Your task to perform on an android device: Search for a cheap bike on Walmart Image 0: 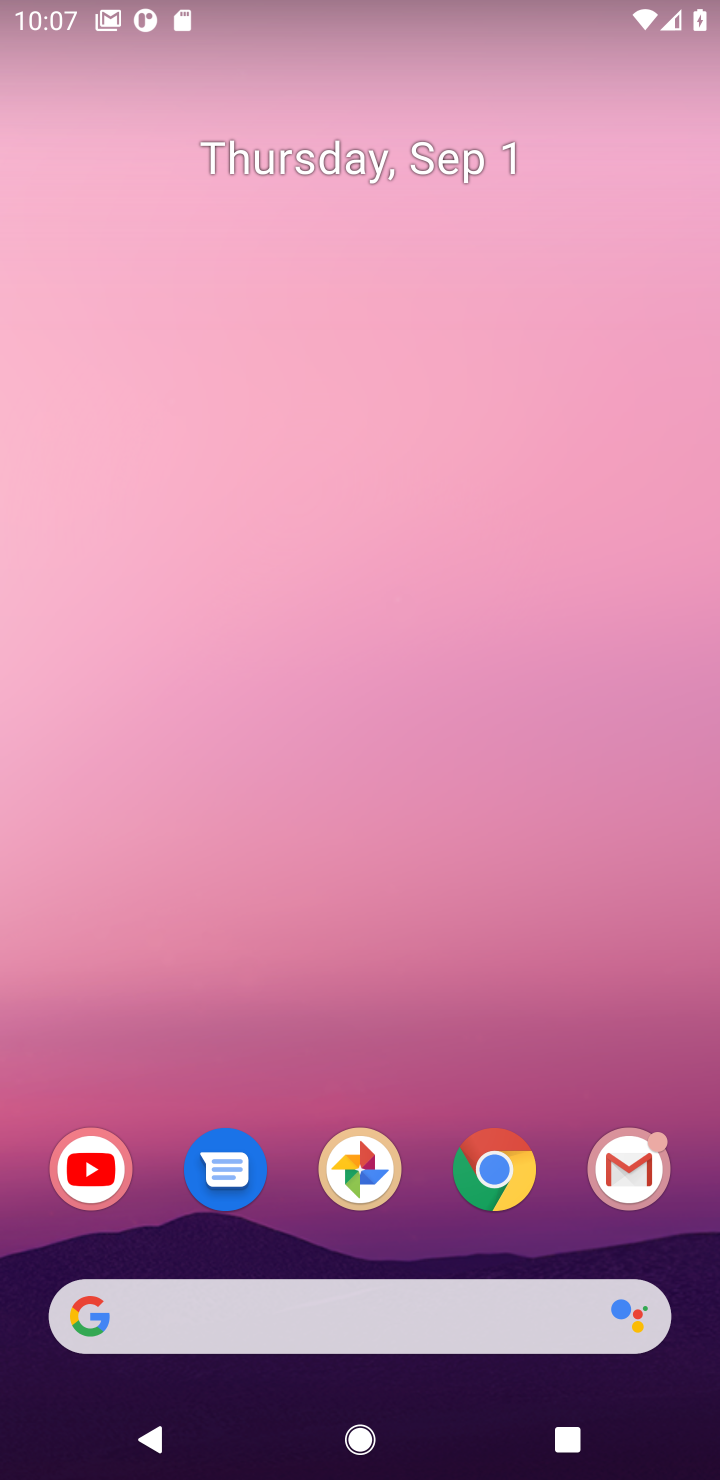
Step 0: drag from (442, 455) to (456, 96)
Your task to perform on an android device: Search for a cheap bike on Walmart Image 1: 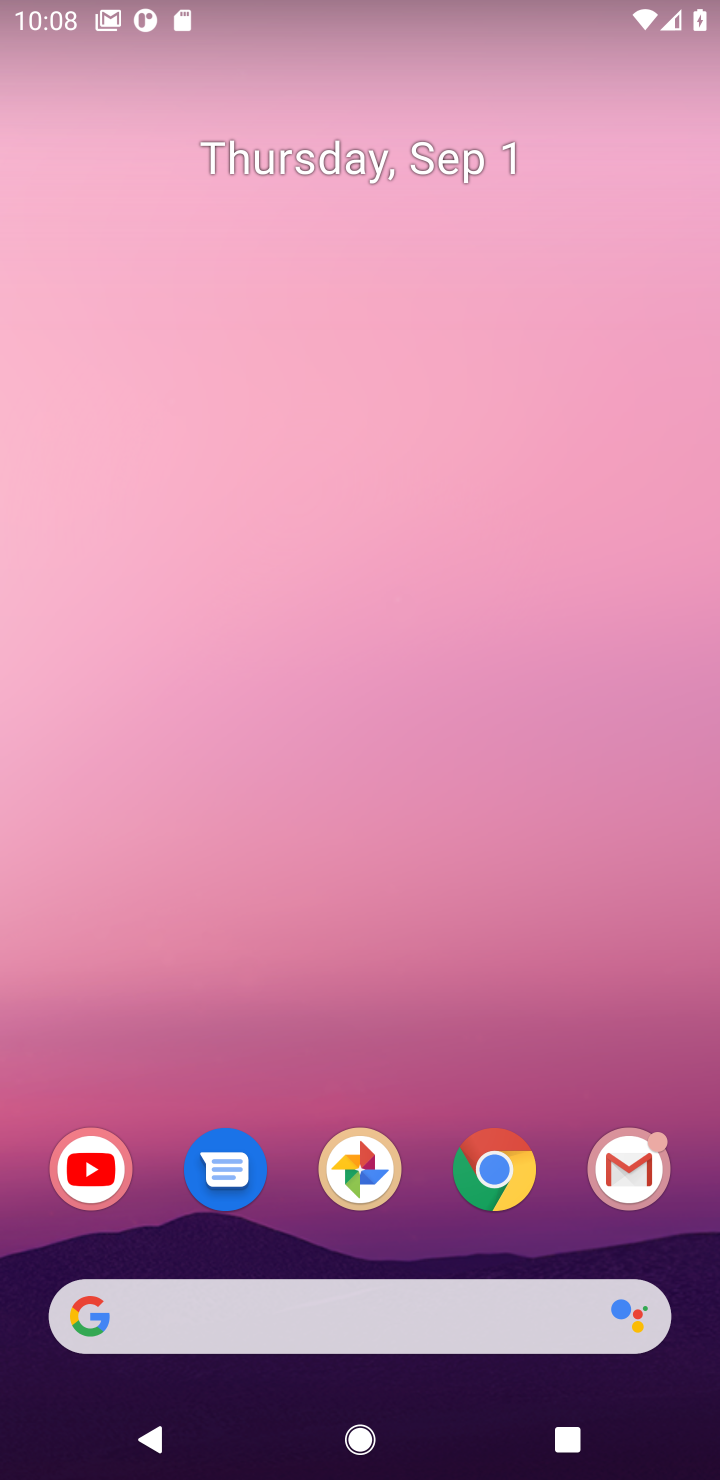
Step 1: drag from (418, 373) to (418, 105)
Your task to perform on an android device: Search for a cheap bike on Walmart Image 2: 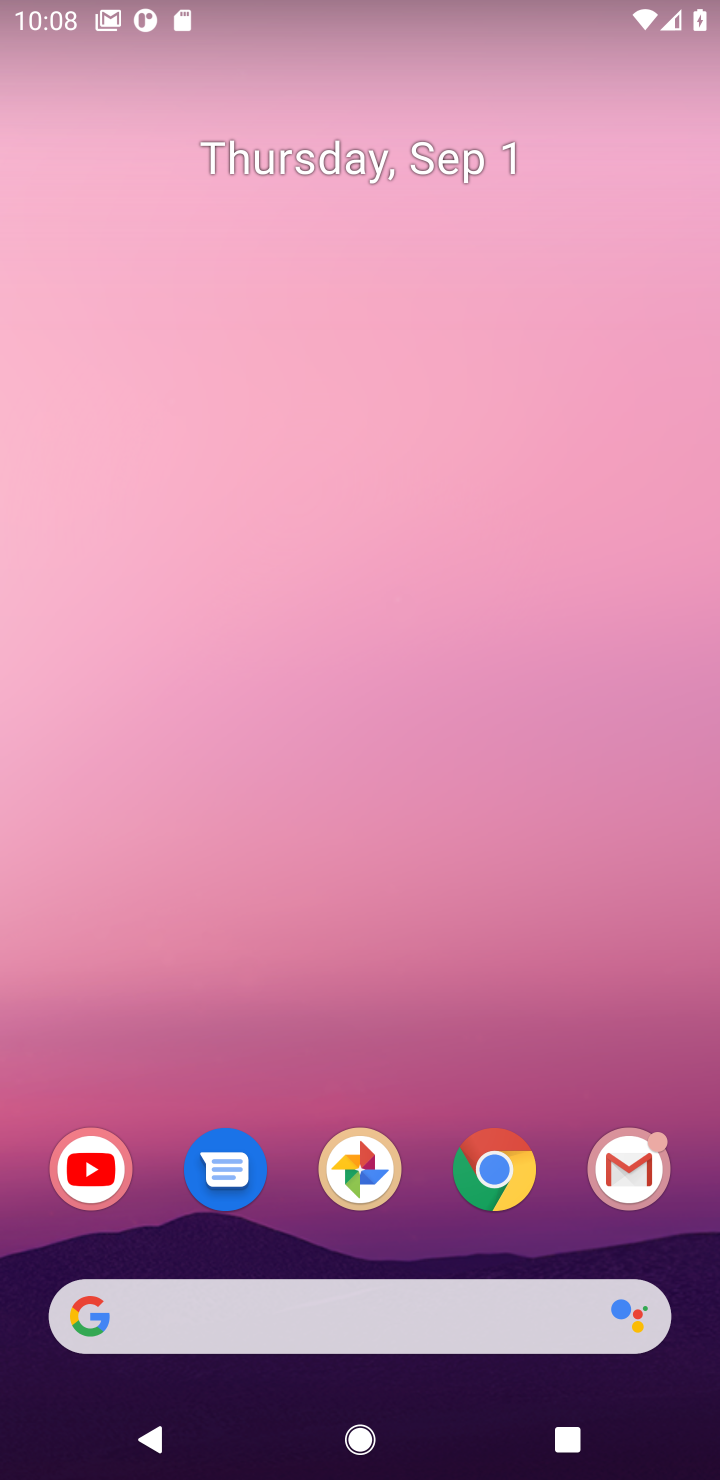
Step 2: drag from (428, 1257) to (429, 15)
Your task to perform on an android device: Search for a cheap bike on Walmart Image 3: 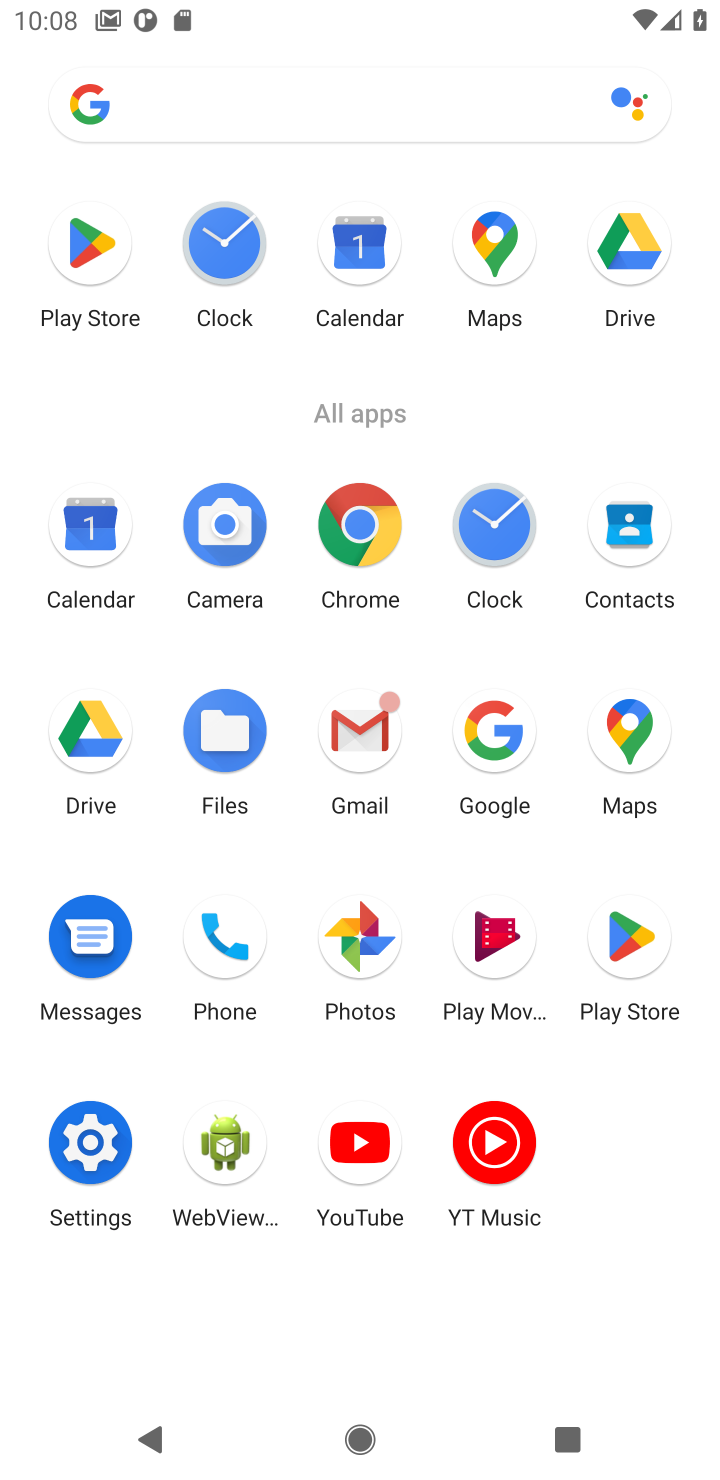
Step 3: click (345, 519)
Your task to perform on an android device: Search for a cheap bike on Walmart Image 4: 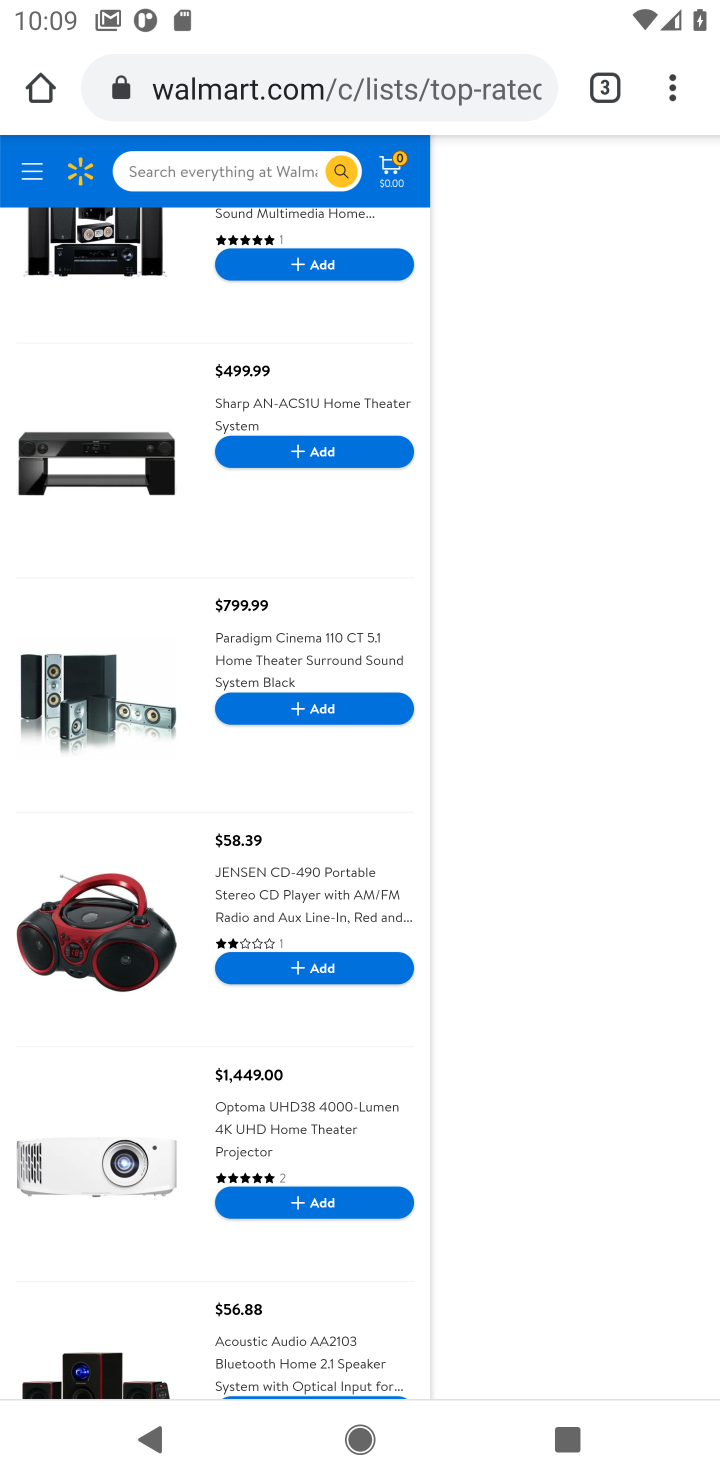
Step 4: drag from (331, 1079) to (351, 1273)
Your task to perform on an android device: Search for a cheap bike on Walmart Image 5: 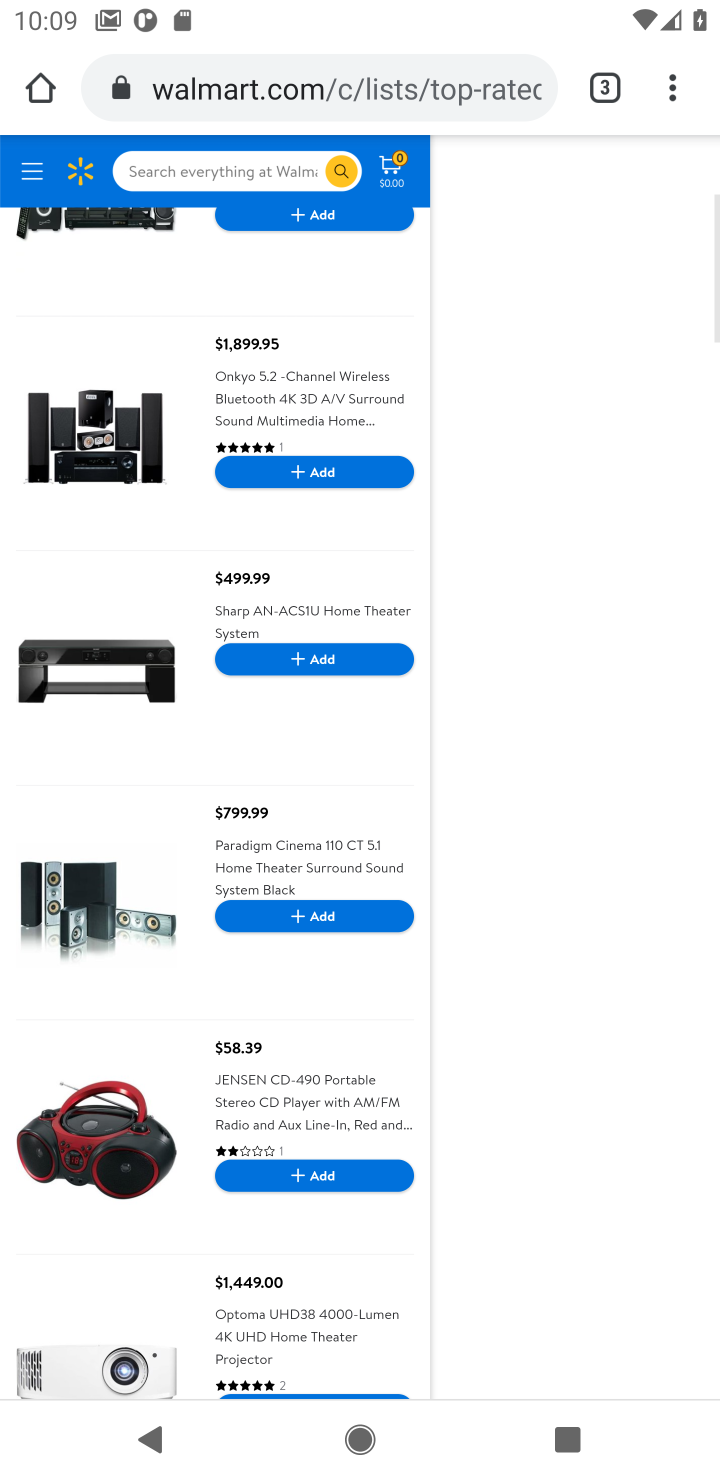
Step 5: click (362, 85)
Your task to perform on an android device: Search for a cheap bike on Walmart Image 6: 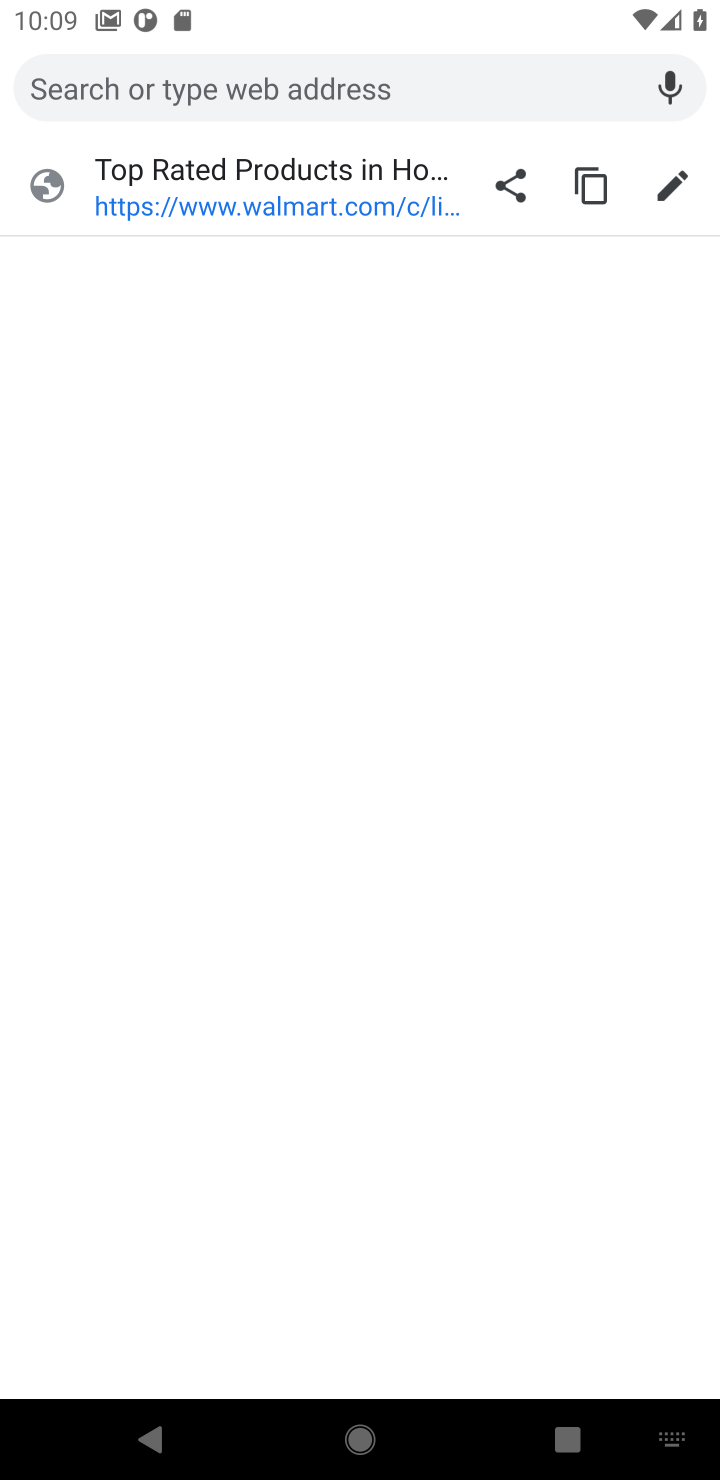
Step 6: type "a cheap bike on Walmart"
Your task to perform on an android device: Search for a cheap bike on Walmart Image 7: 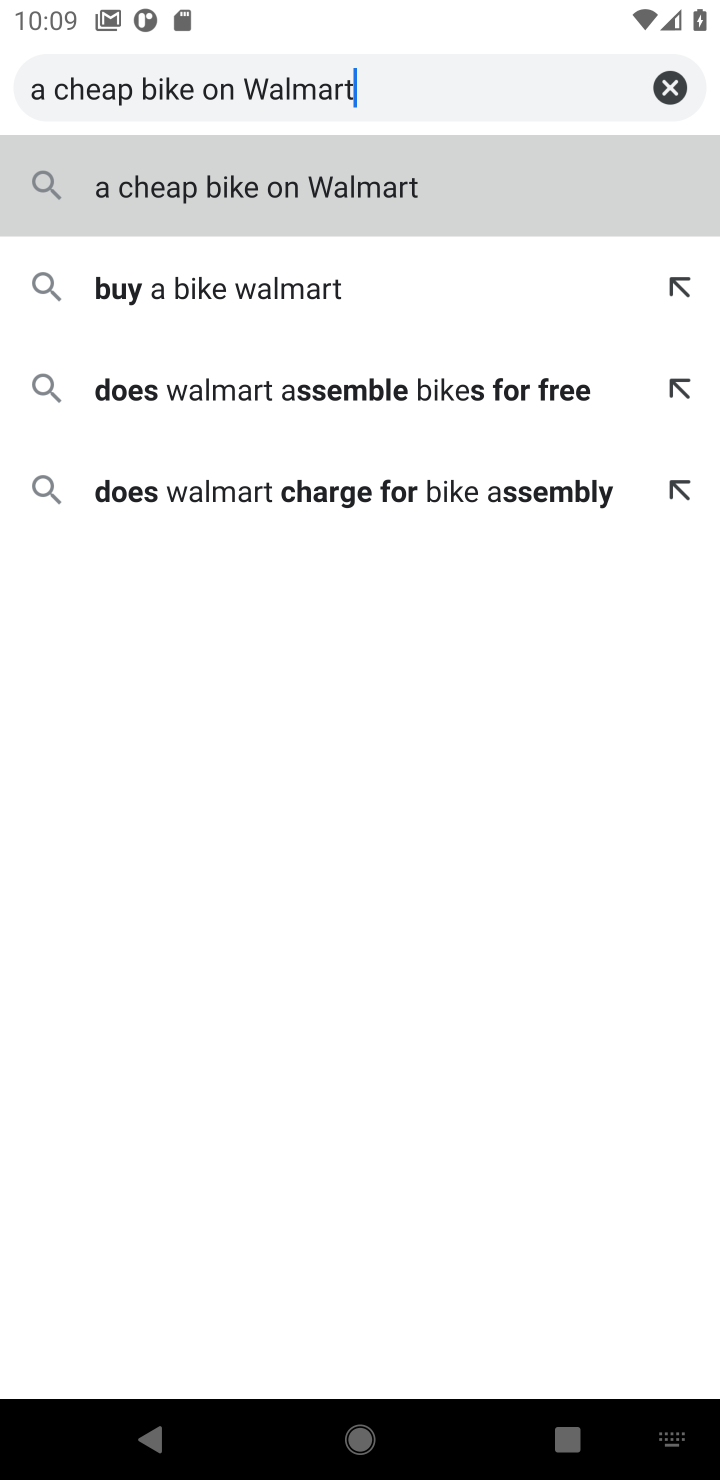
Step 7: click (255, 212)
Your task to perform on an android device: Search for a cheap bike on Walmart Image 8: 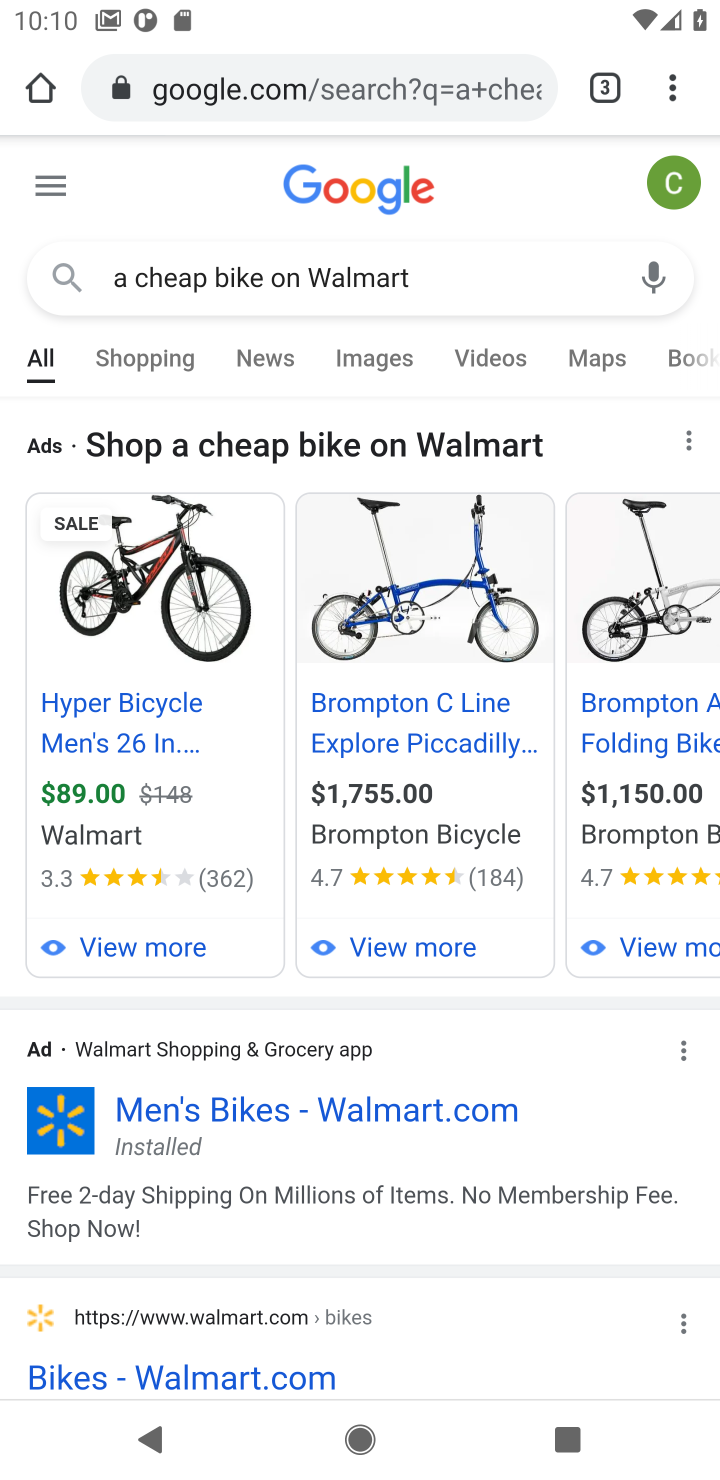
Step 8: drag from (266, 1331) to (294, 586)
Your task to perform on an android device: Search for a cheap bike on Walmart Image 9: 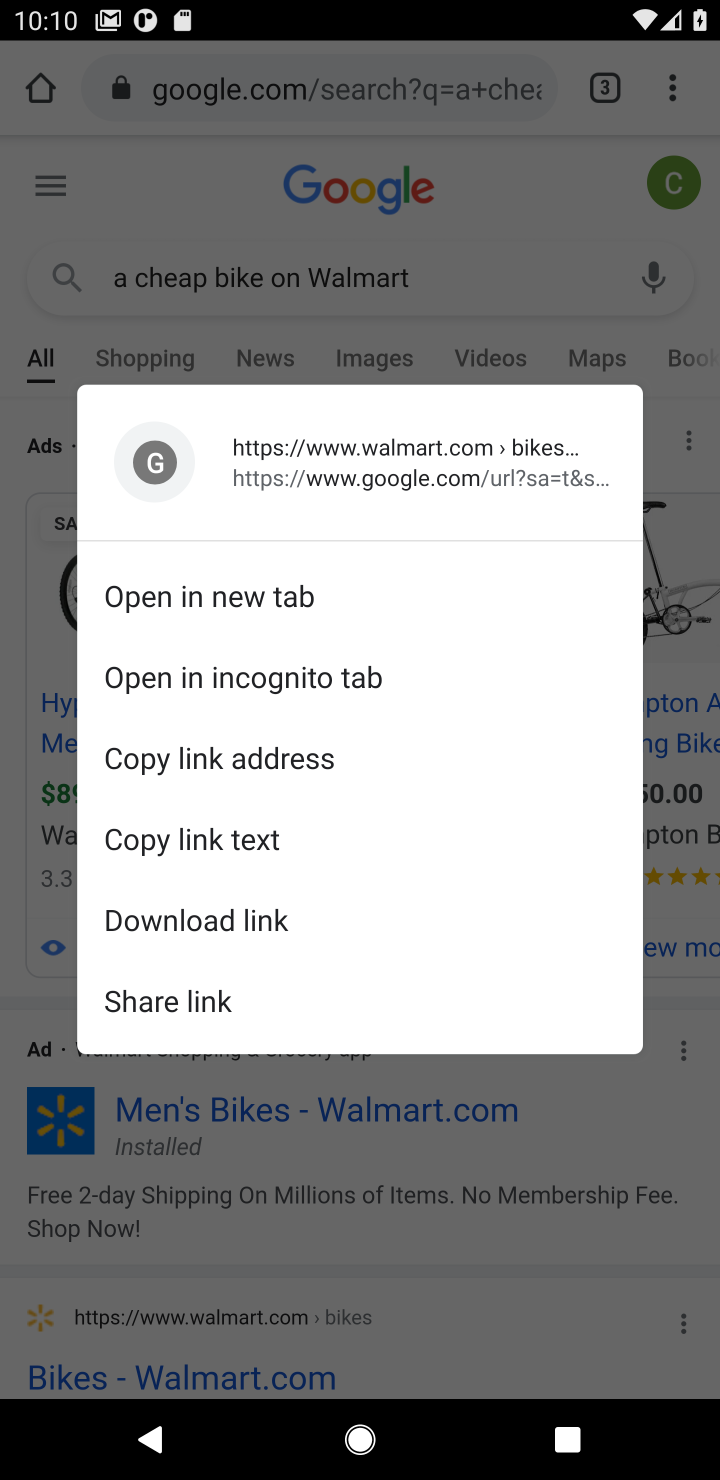
Step 9: click (476, 1304)
Your task to perform on an android device: Search for a cheap bike on Walmart Image 10: 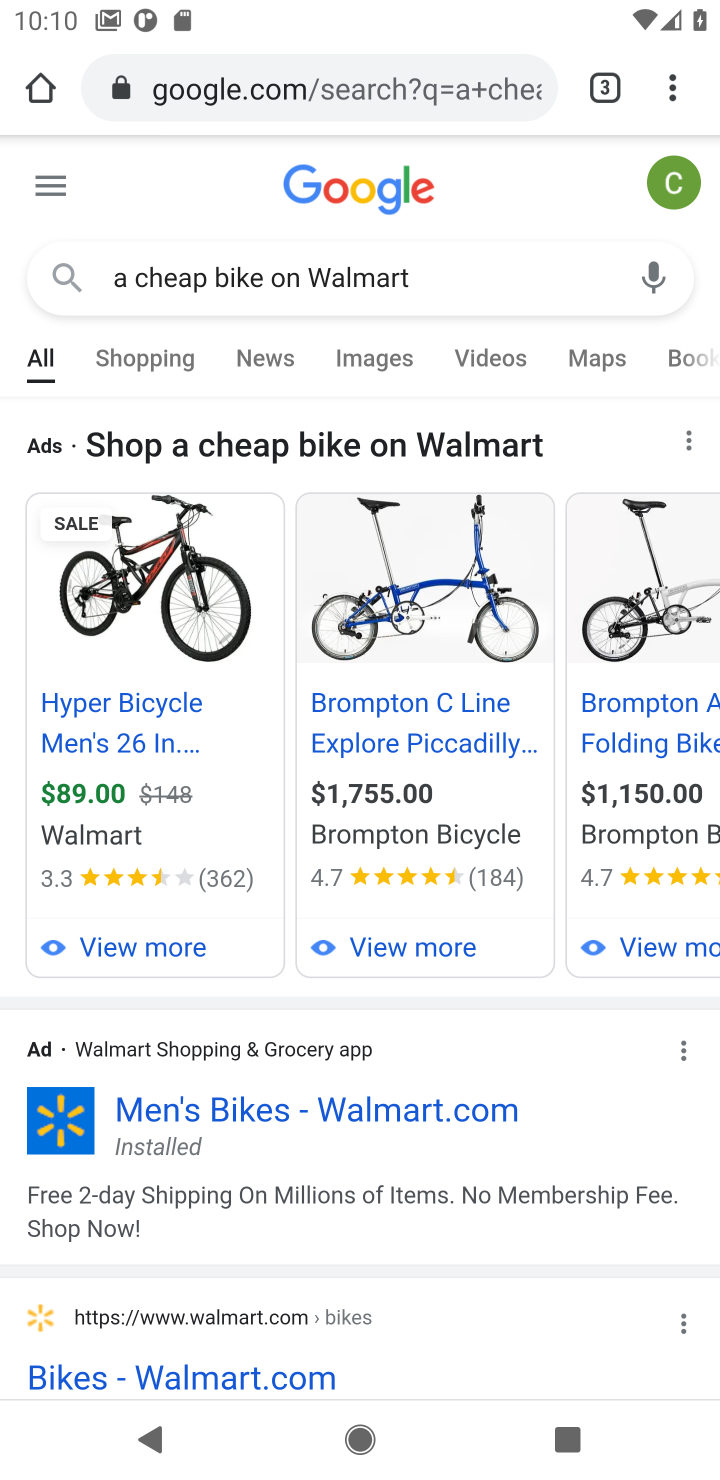
Step 10: drag from (487, 1279) to (517, 560)
Your task to perform on an android device: Search for a cheap bike on Walmart Image 11: 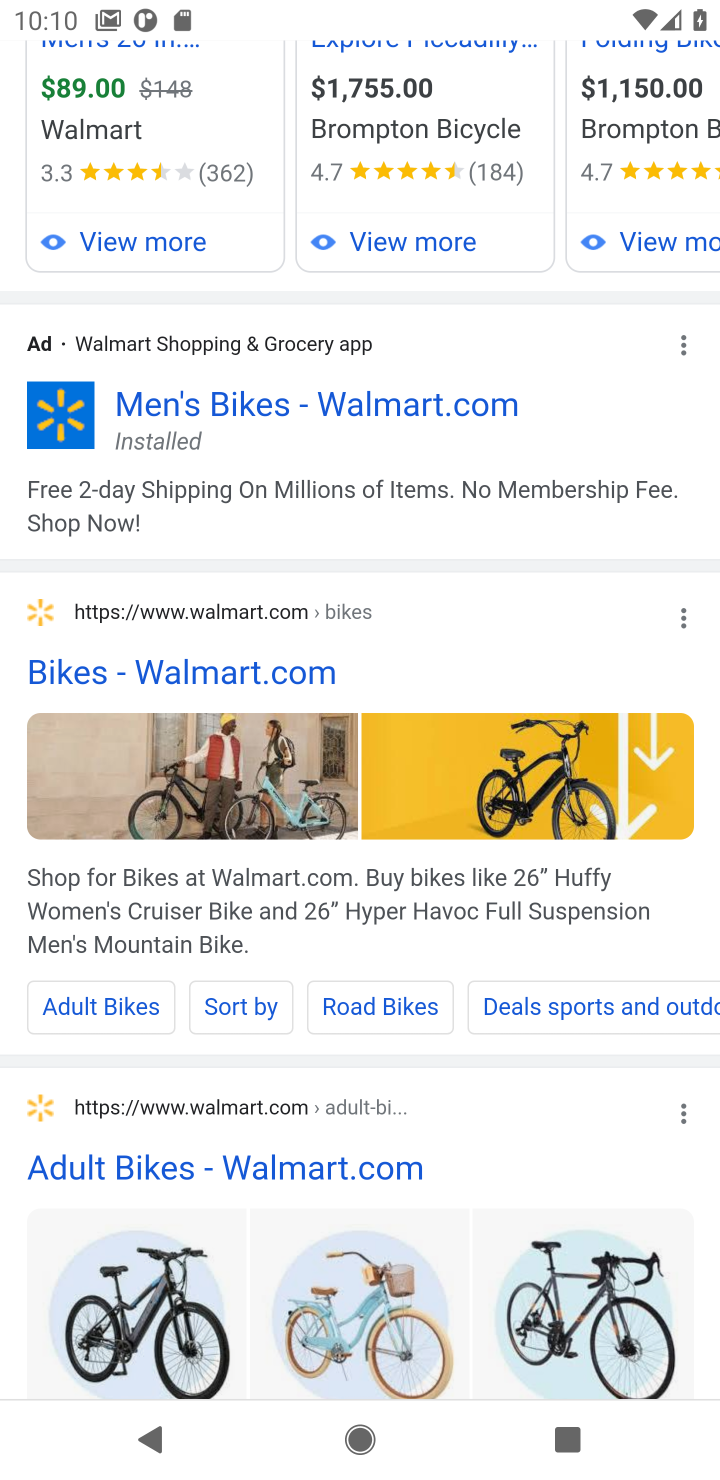
Step 11: click (202, 670)
Your task to perform on an android device: Search for a cheap bike on Walmart Image 12: 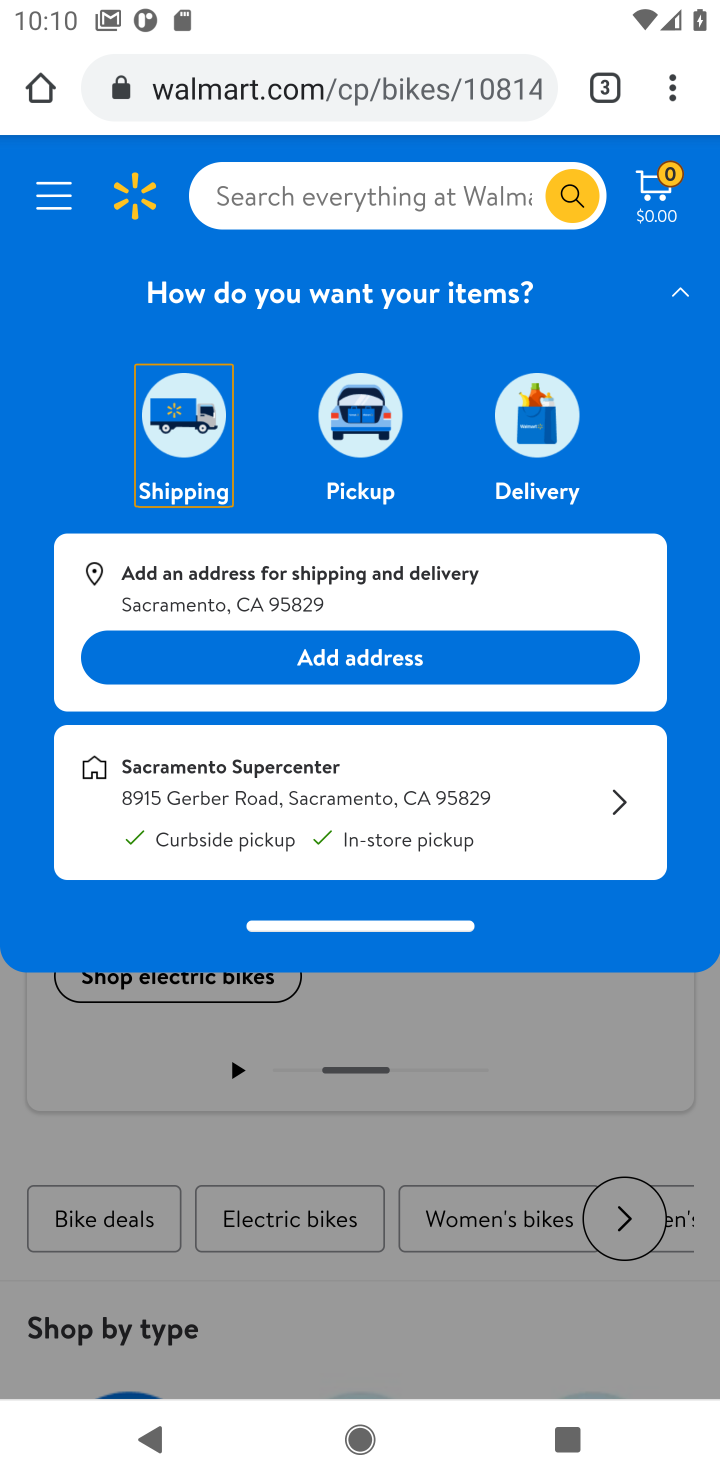
Step 12: click (410, 1243)
Your task to perform on an android device: Search for a cheap bike on Walmart Image 13: 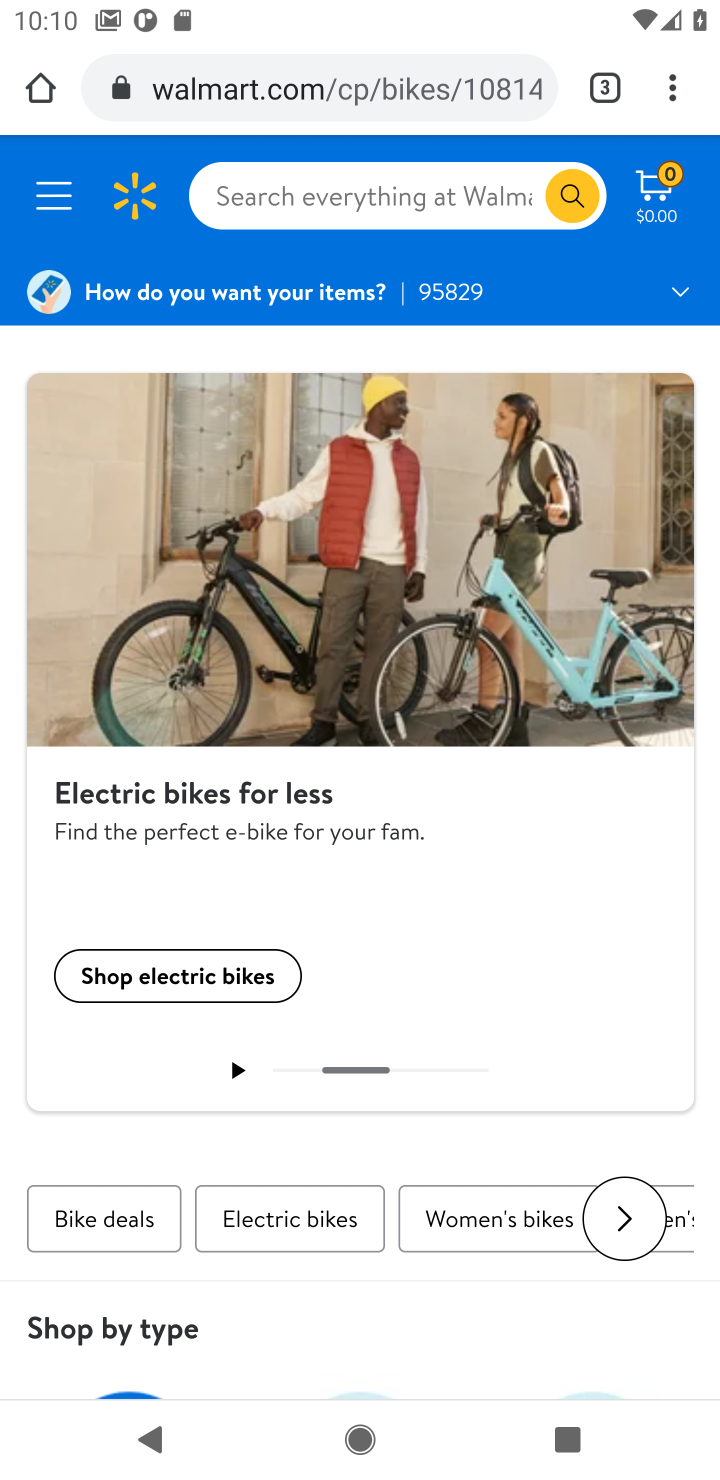
Step 13: drag from (440, 835) to (432, 473)
Your task to perform on an android device: Search for a cheap bike on Walmart Image 14: 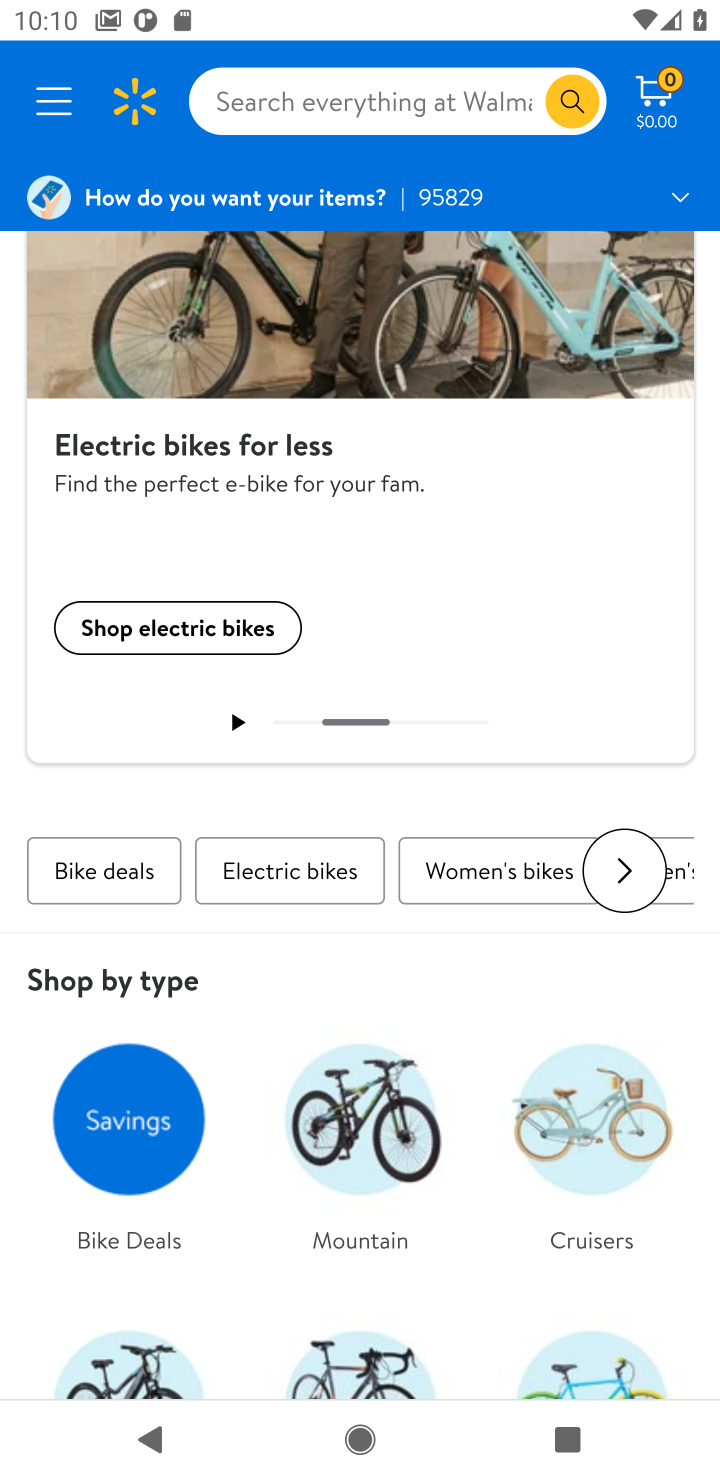
Step 14: drag from (467, 1014) to (464, 514)
Your task to perform on an android device: Search for a cheap bike on Walmart Image 15: 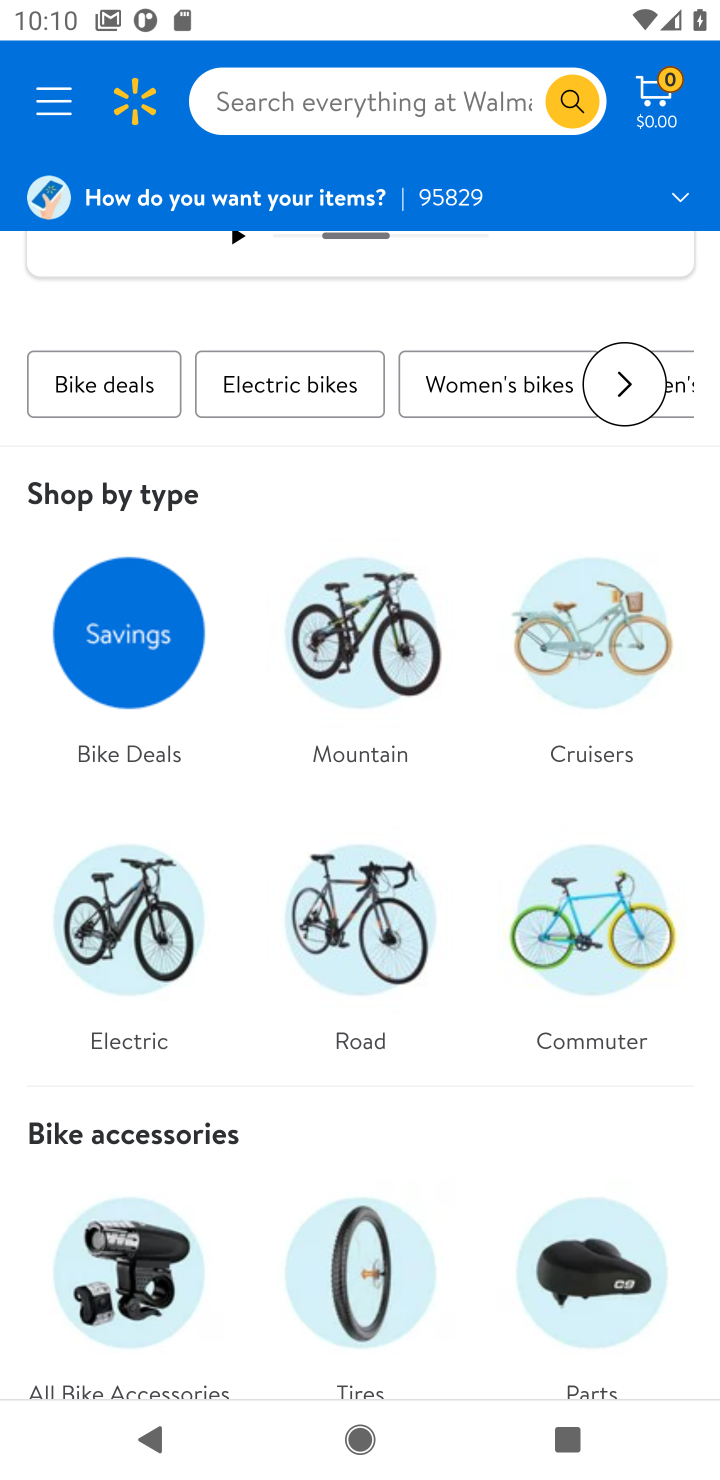
Step 15: click (336, 667)
Your task to perform on an android device: Search for a cheap bike on Walmart Image 16: 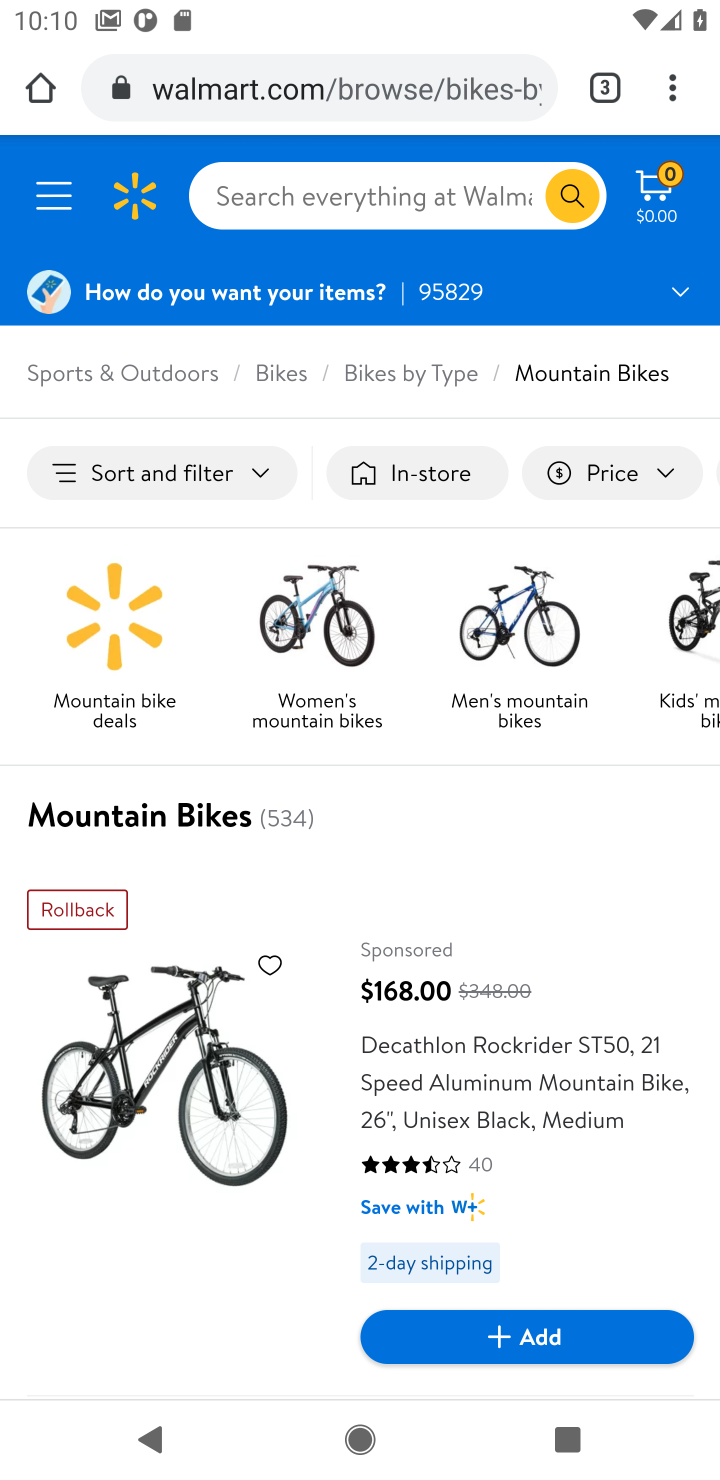
Step 16: task complete